Your task to perform on an android device: toggle translation in the chrome app Image 0: 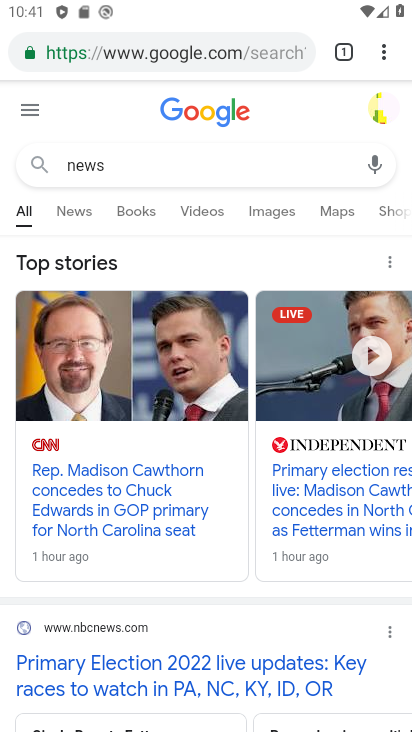
Step 0: press home button
Your task to perform on an android device: toggle translation in the chrome app Image 1: 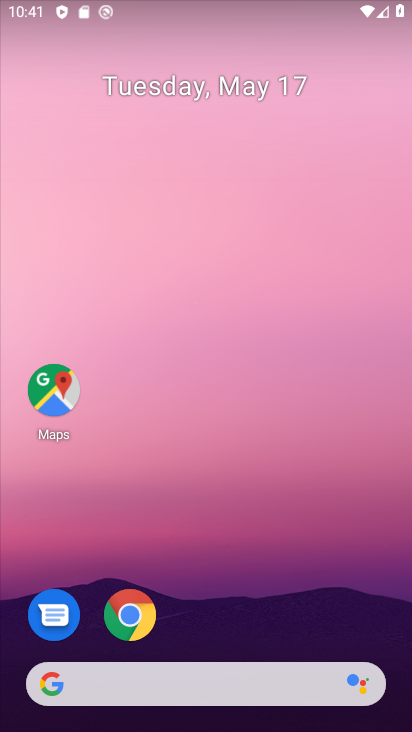
Step 1: click (120, 612)
Your task to perform on an android device: toggle translation in the chrome app Image 2: 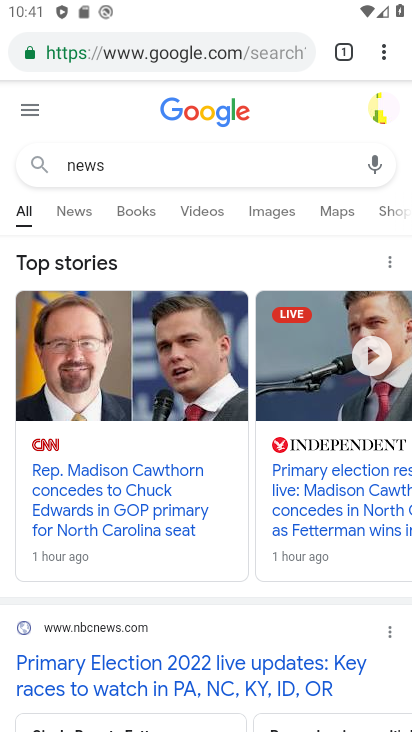
Step 2: click (385, 50)
Your task to perform on an android device: toggle translation in the chrome app Image 3: 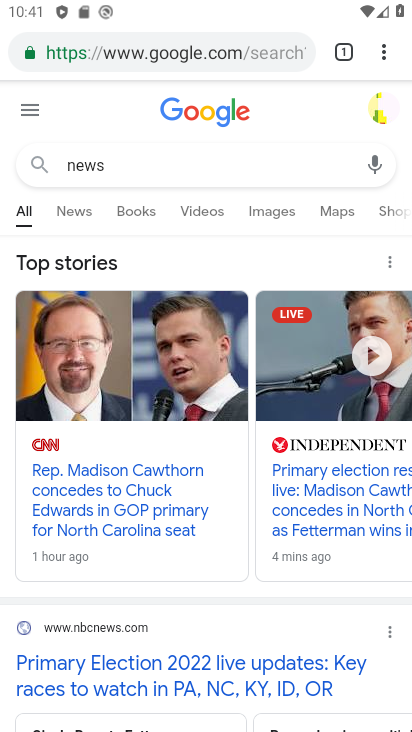
Step 3: click (383, 50)
Your task to perform on an android device: toggle translation in the chrome app Image 4: 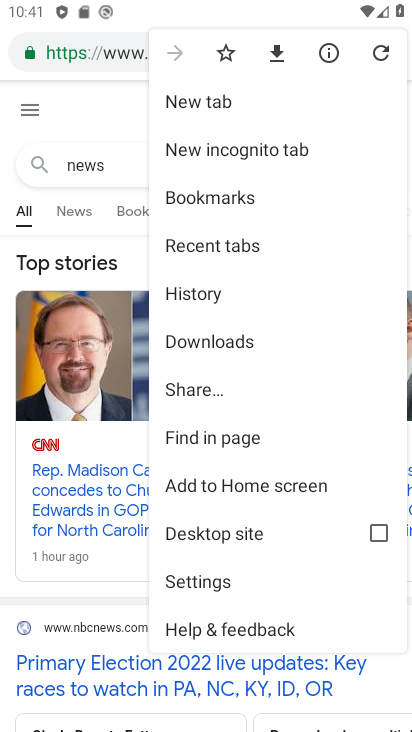
Step 4: click (183, 583)
Your task to perform on an android device: toggle translation in the chrome app Image 5: 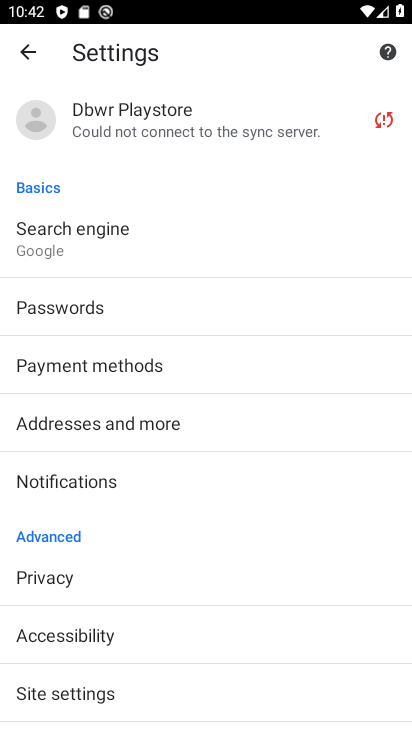
Step 5: drag from (141, 652) to (160, 301)
Your task to perform on an android device: toggle translation in the chrome app Image 6: 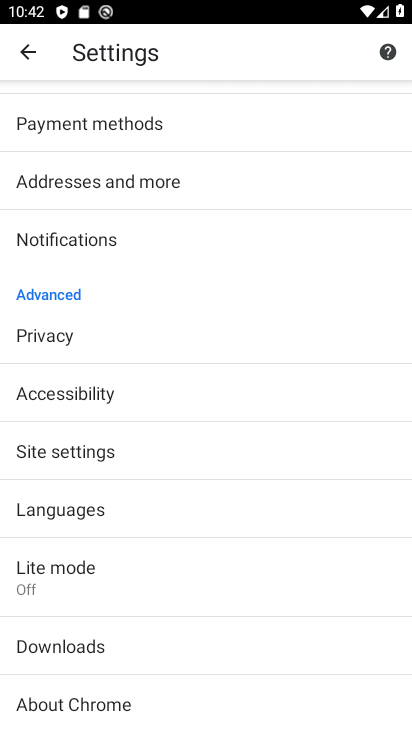
Step 6: click (89, 517)
Your task to perform on an android device: toggle translation in the chrome app Image 7: 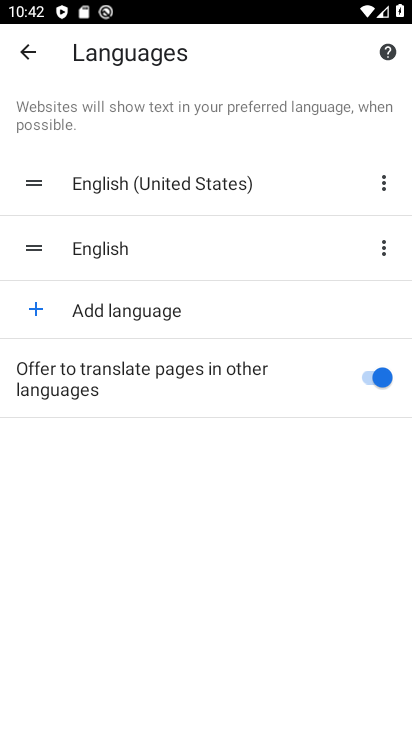
Step 7: click (378, 368)
Your task to perform on an android device: toggle translation in the chrome app Image 8: 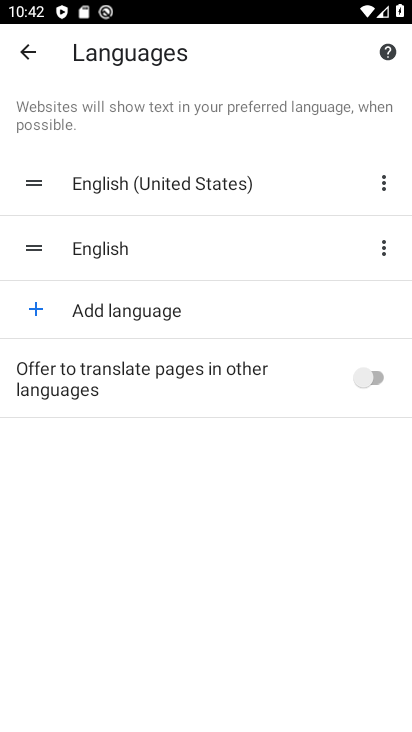
Step 8: task complete